Your task to perform on an android device: Search for logitech g933 on costco, select the first entry, add it to the cart, then select checkout. Image 0: 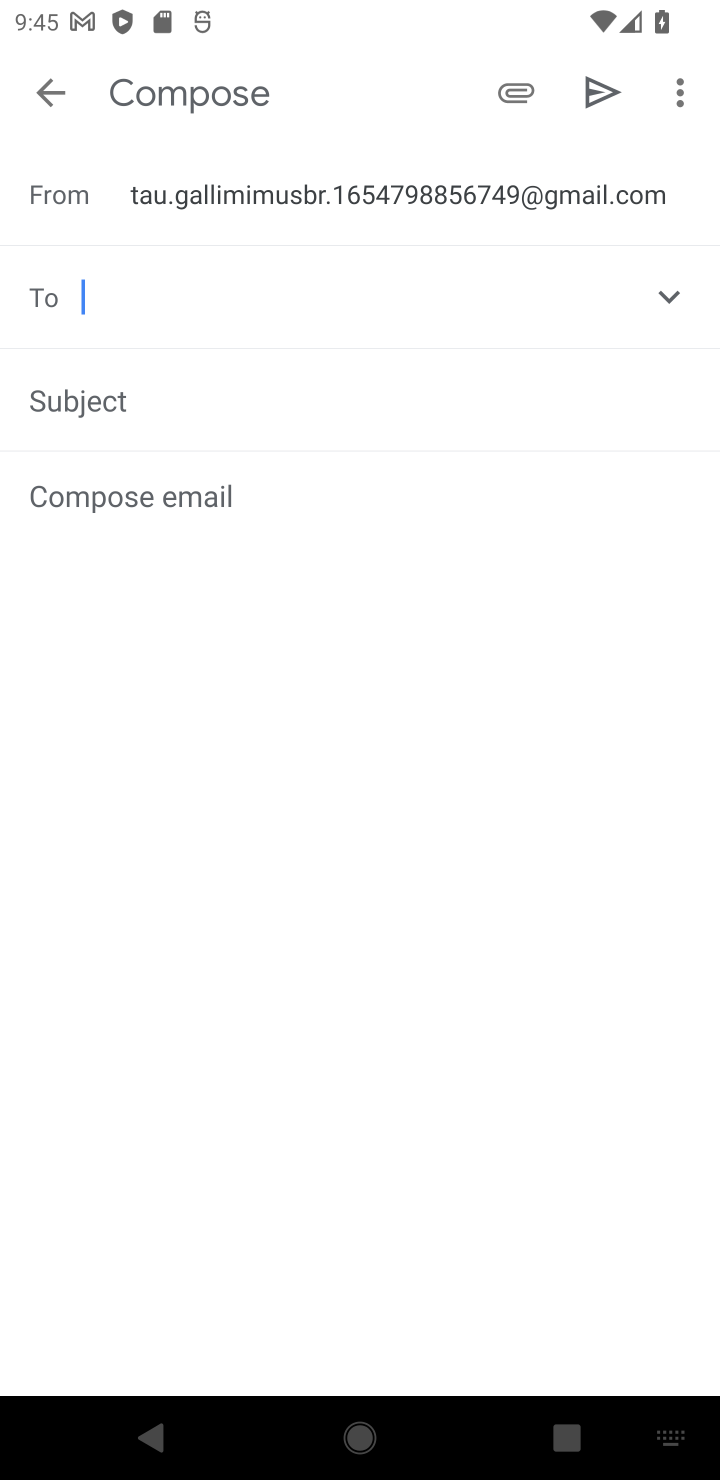
Step 0: press home button
Your task to perform on an android device: Search for logitech g933 on costco, select the first entry, add it to the cart, then select checkout. Image 1: 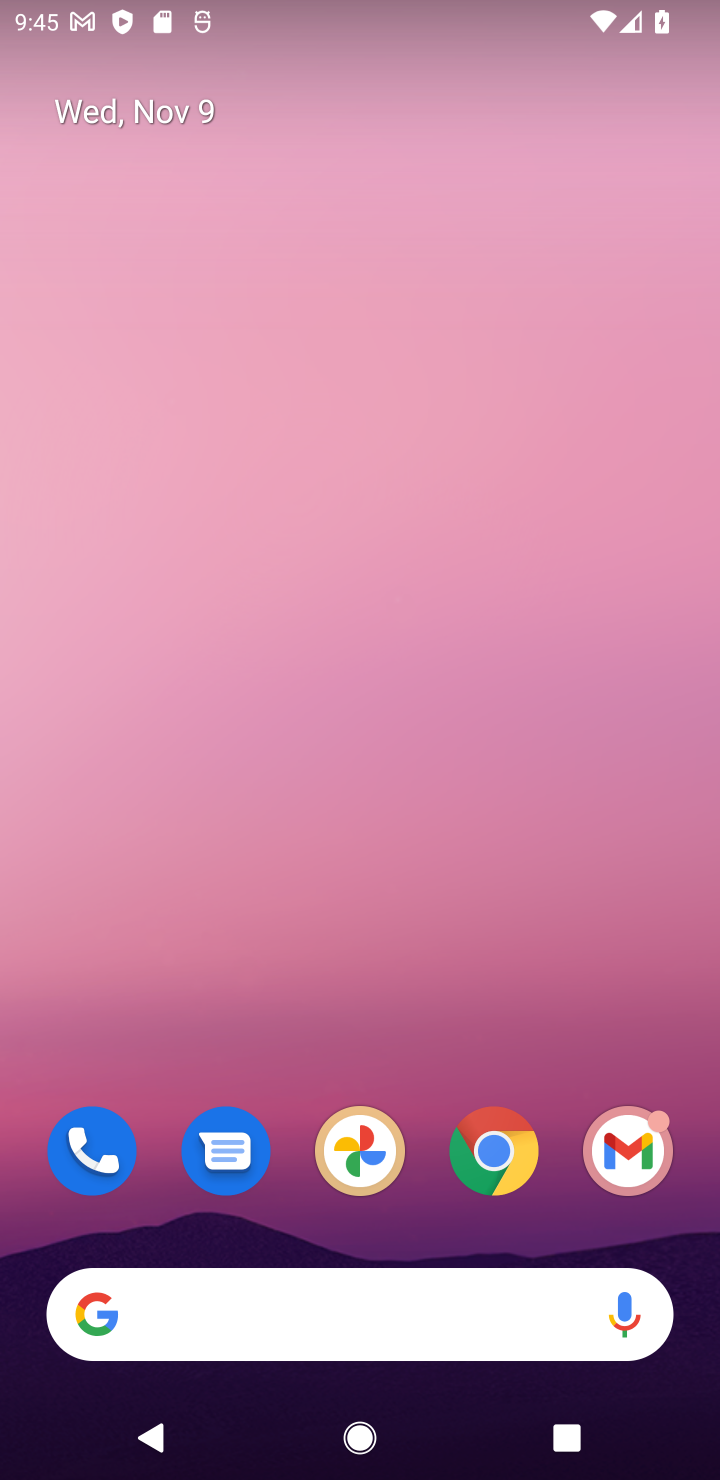
Step 1: click (526, 1143)
Your task to perform on an android device: Search for logitech g933 on costco, select the first entry, add it to the cart, then select checkout. Image 2: 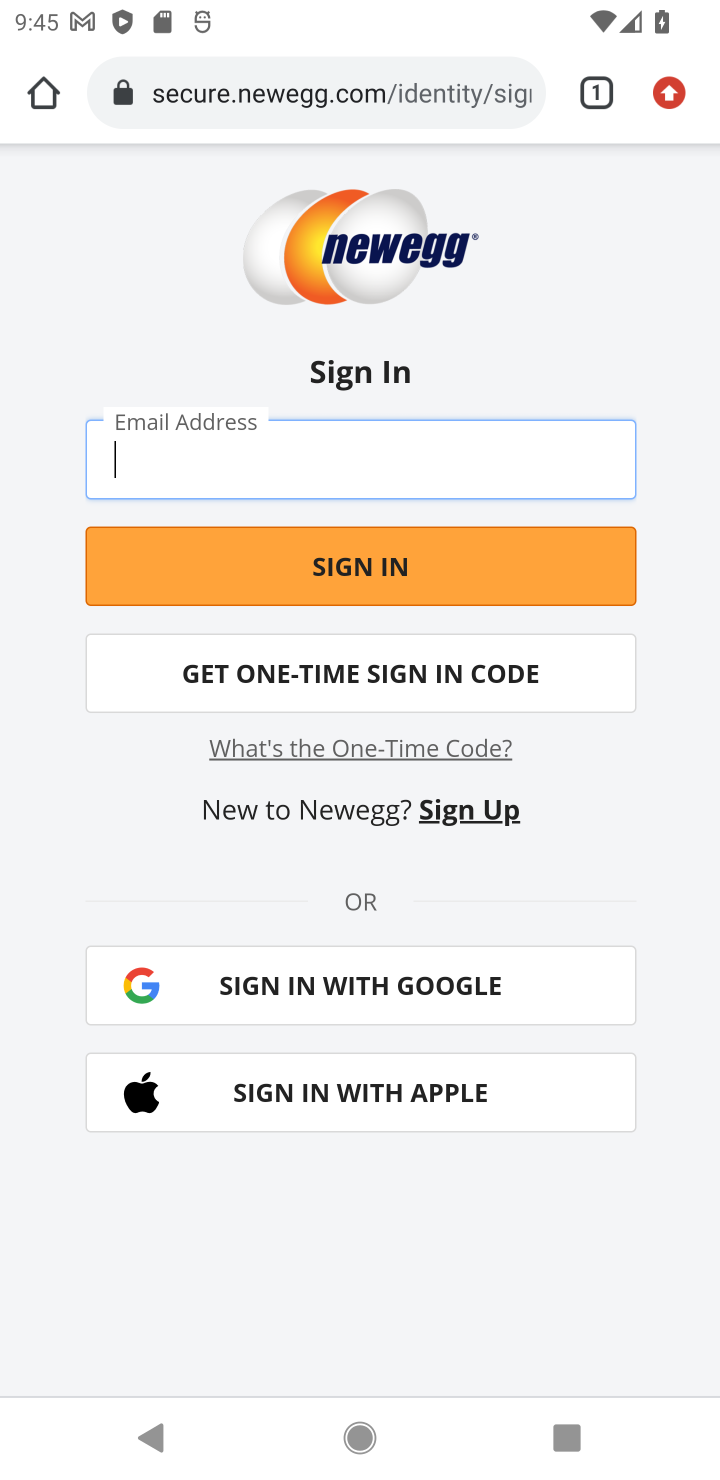
Step 2: click (488, 94)
Your task to perform on an android device: Search for logitech g933 on costco, select the first entry, add it to the cart, then select checkout. Image 3: 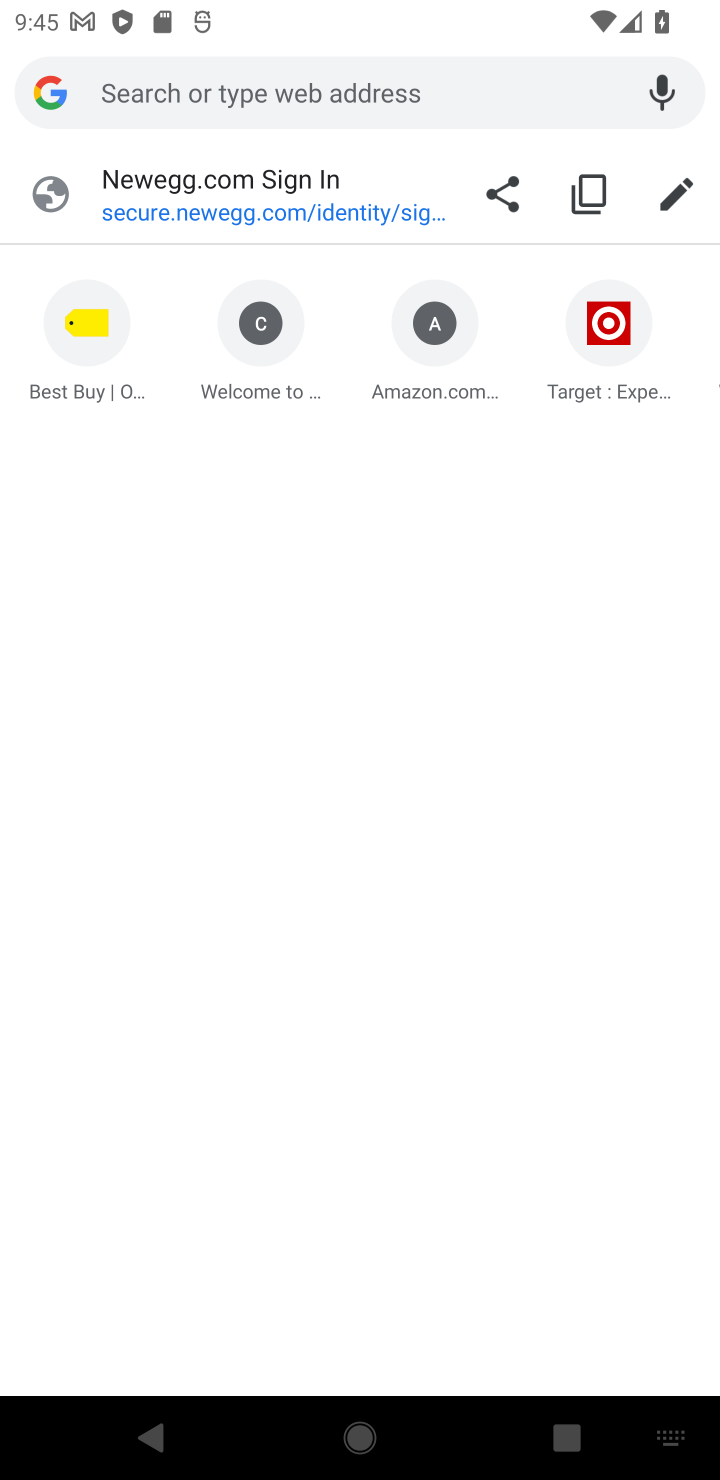
Step 3: type "costco"
Your task to perform on an android device: Search for logitech g933 on costco, select the first entry, add it to the cart, then select checkout. Image 4: 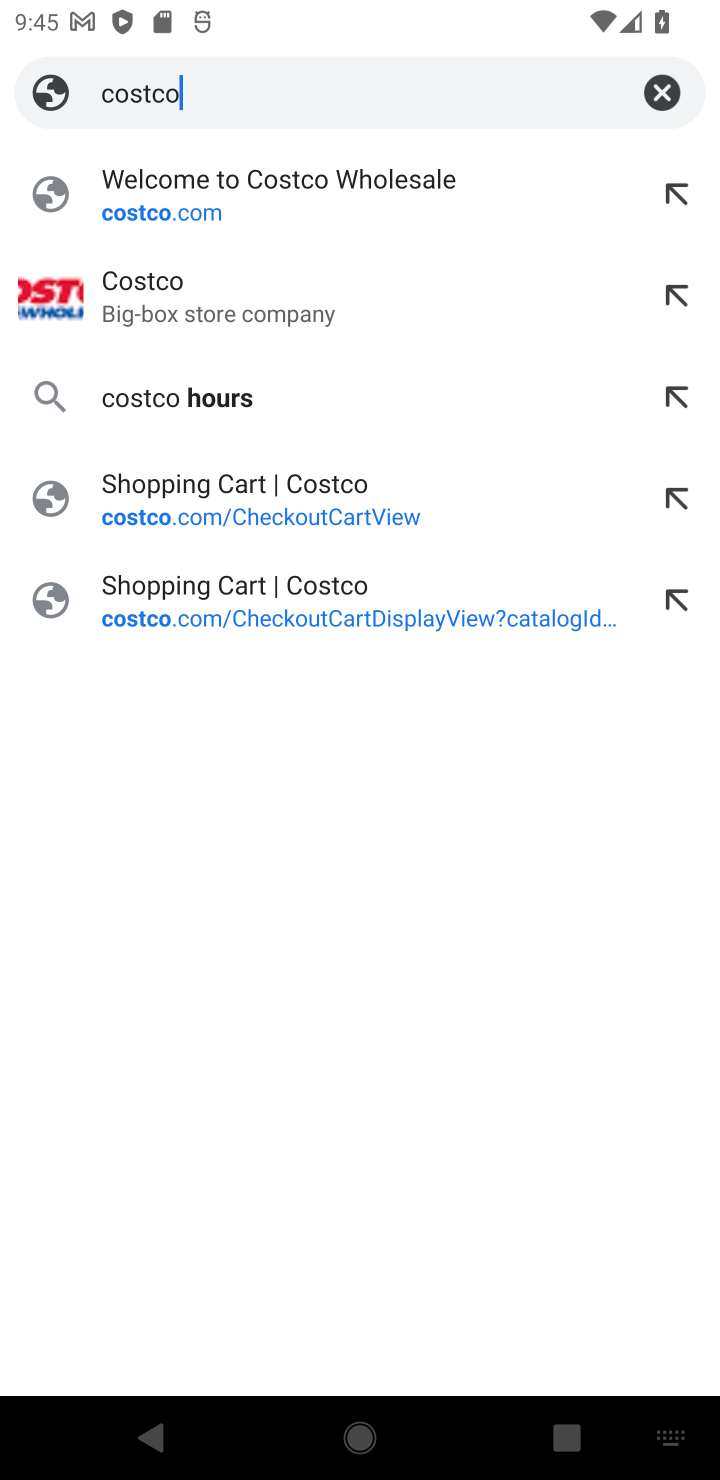
Step 4: click (198, 290)
Your task to perform on an android device: Search for logitech g933 on costco, select the first entry, add it to the cart, then select checkout. Image 5: 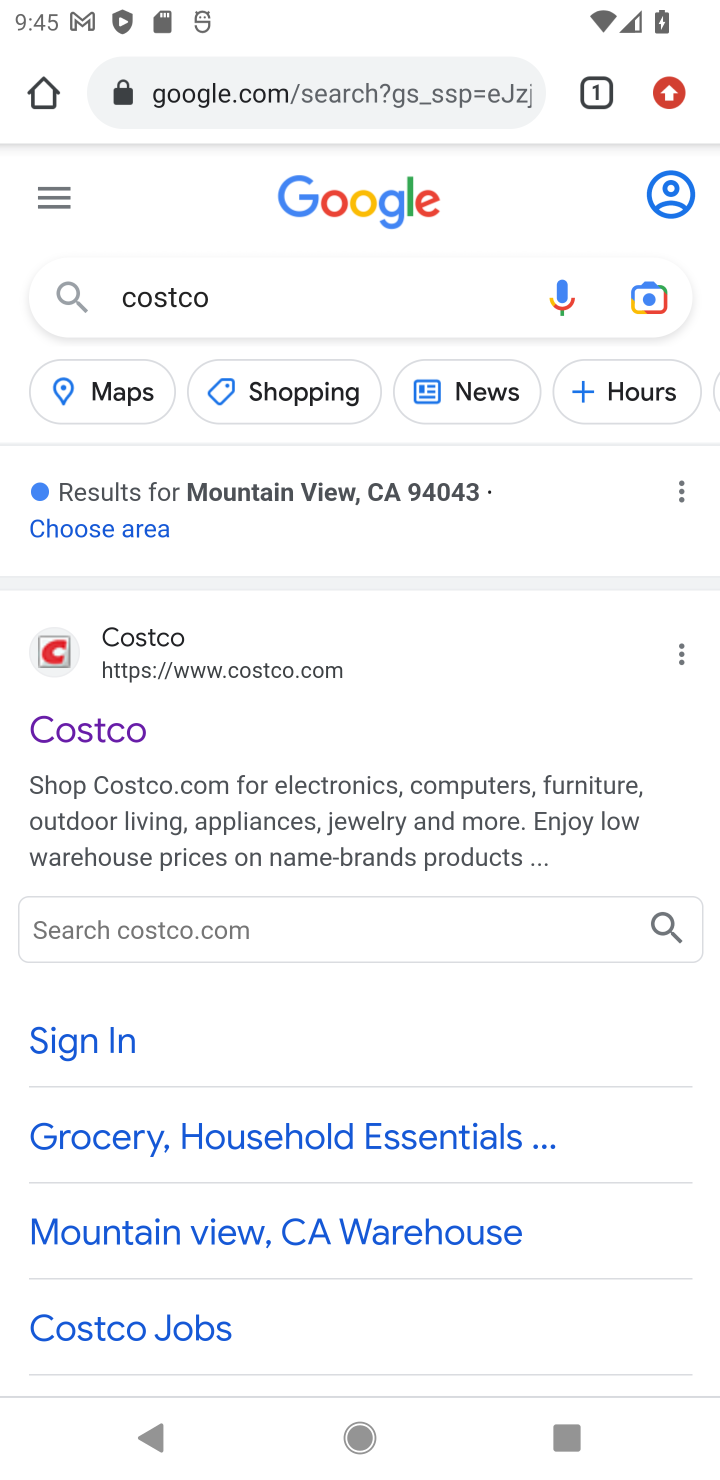
Step 5: click (249, 669)
Your task to perform on an android device: Search for logitech g933 on costco, select the first entry, add it to the cart, then select checkout. Image 6: 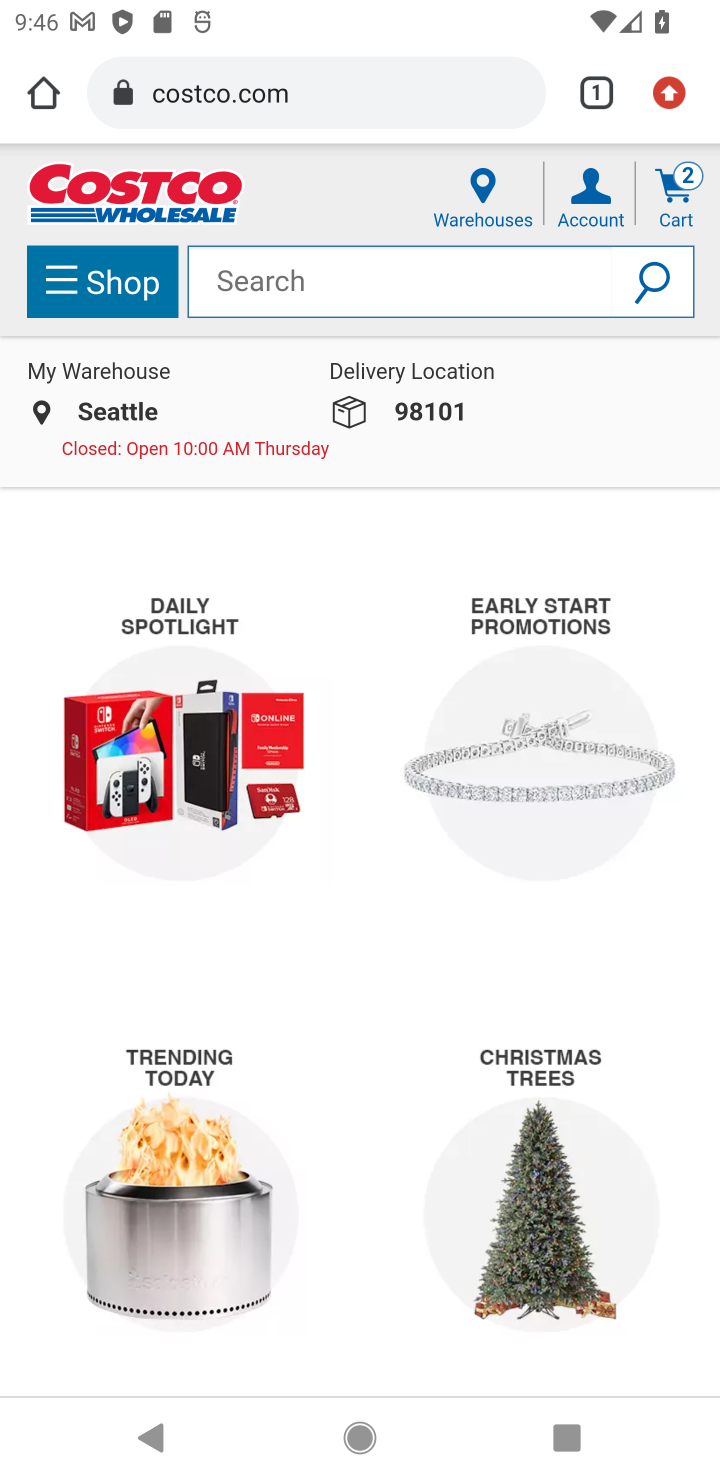
Step 6: click (554, 280)
Your task to perform on an android device: Search for logitech g933 on costco, select the first entry, add it to the cart, then select checkout. Image 7: 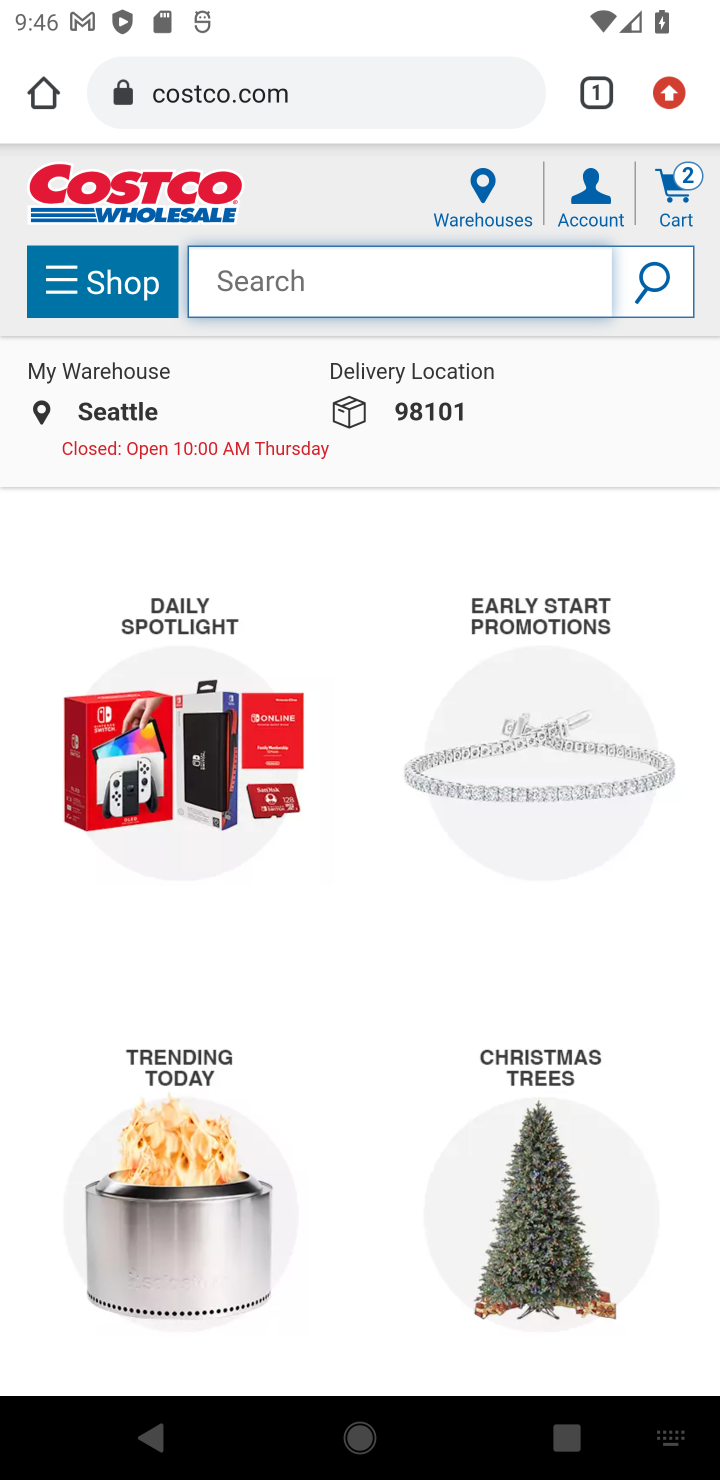
Step 7: type "logitech g933"
Your task to perform on an android device: Search for logitech g933 on costco, select the first entry, add it to the cart, then select checkout. Image 8: 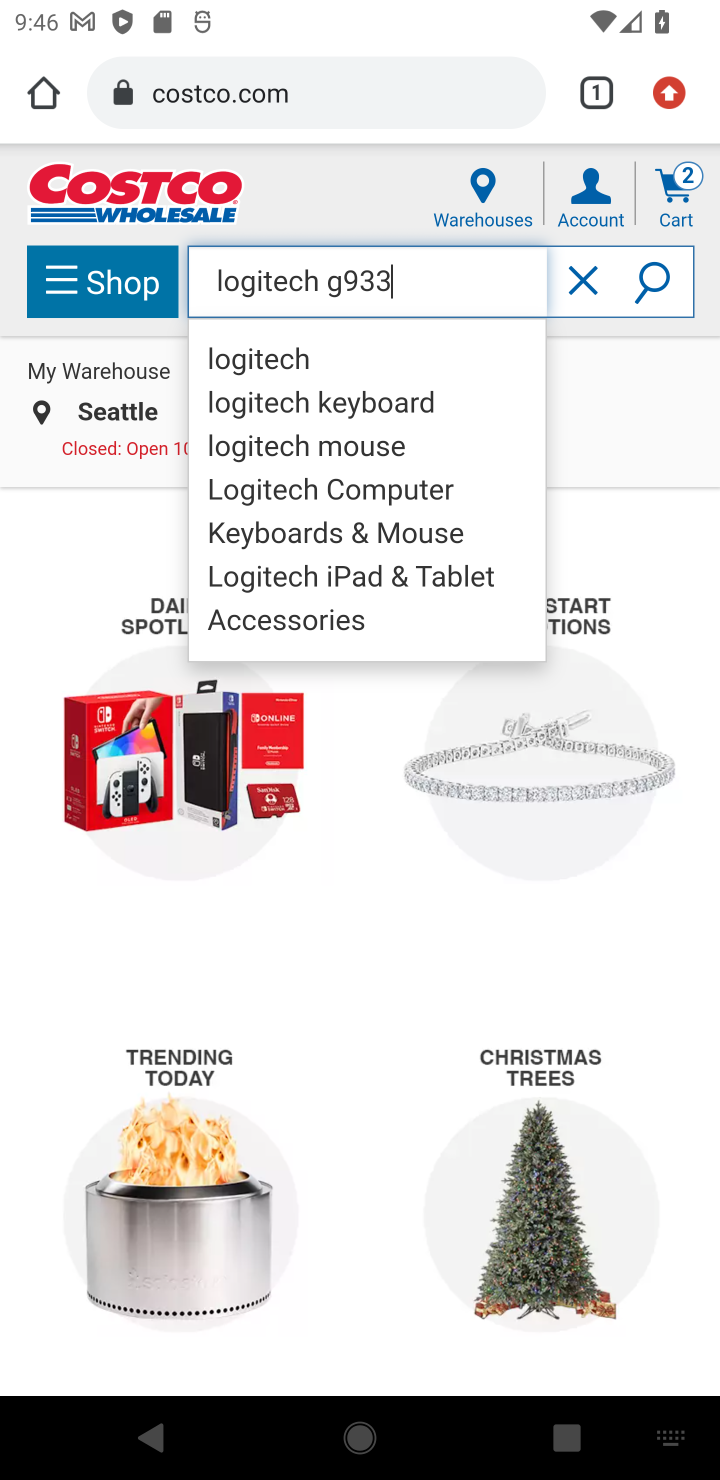
Step 8: click (676, 374)
Your task to perform on an android device: Search for logitech g933 on costco, select the first entry, add it to the cart, then select checkout. Image 9: 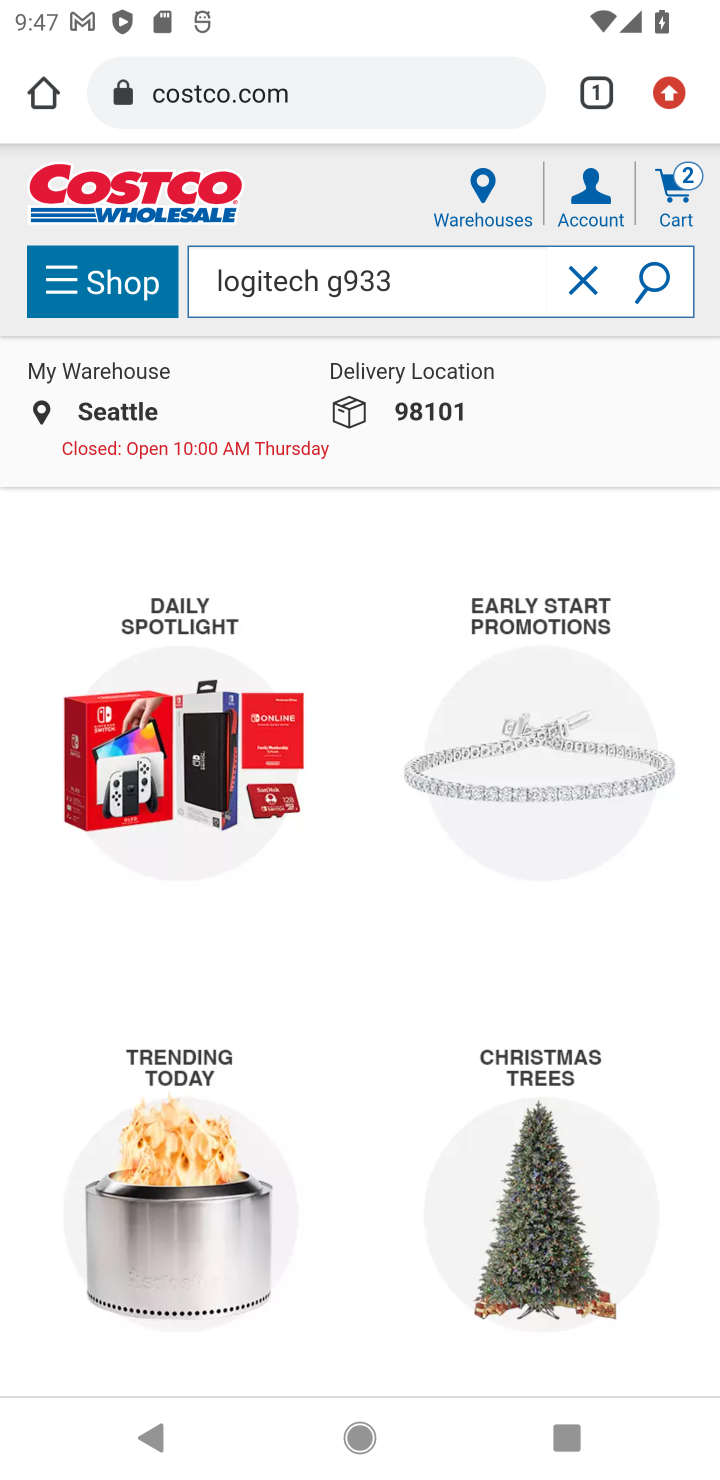
Step 9: task complete